Your task to perform on an android device: turn on the 24-hour format for clock Image 0: 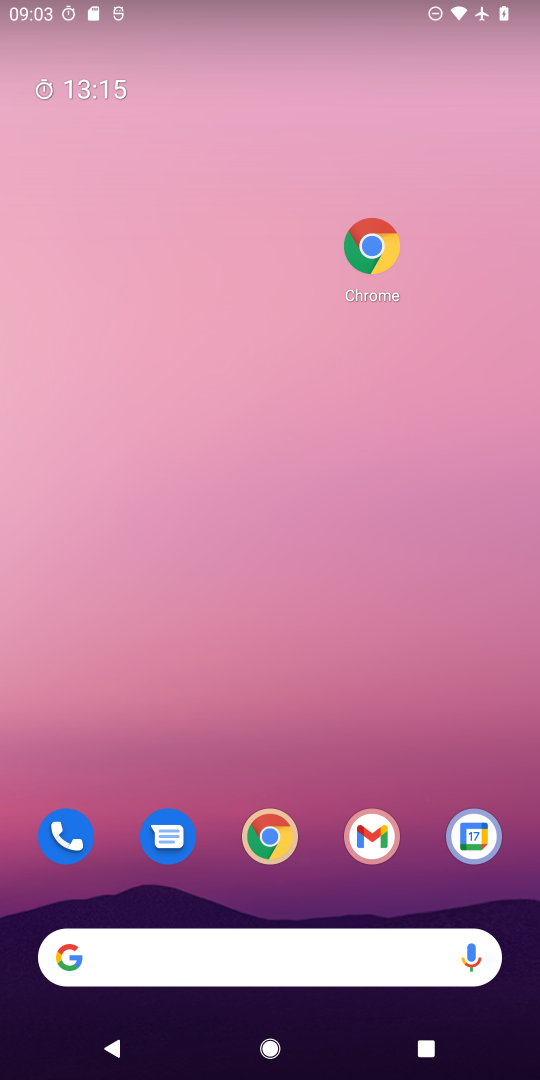
Step 0: drag from (283, 926) to (243, 43)
Your task to perform on an android device: turn on the 24-hour format for clock Image 1: 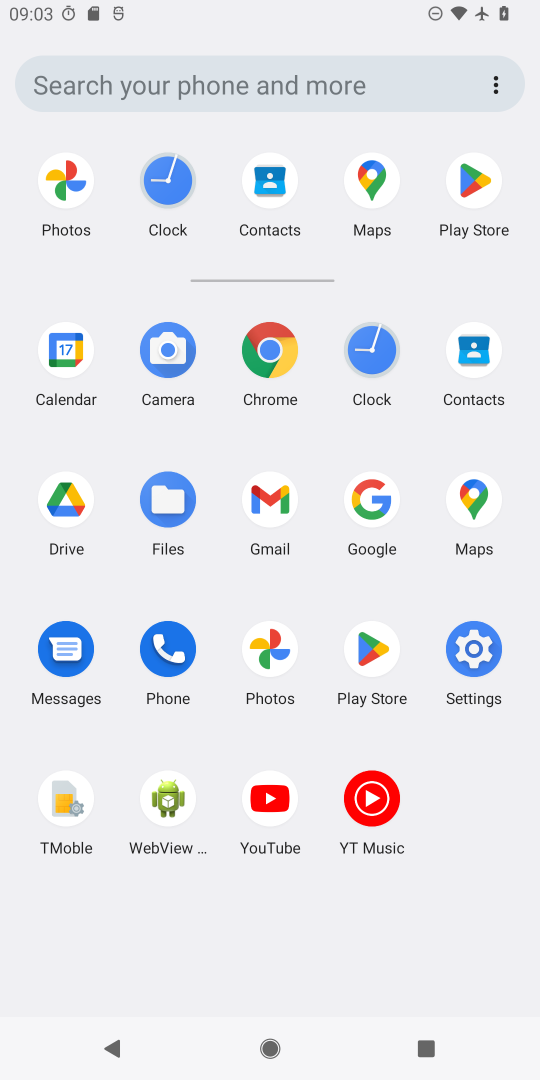
Step 1: click (364, 344)
Your task to perform on an android device: turn on the 24-hour format for clock Image 2: 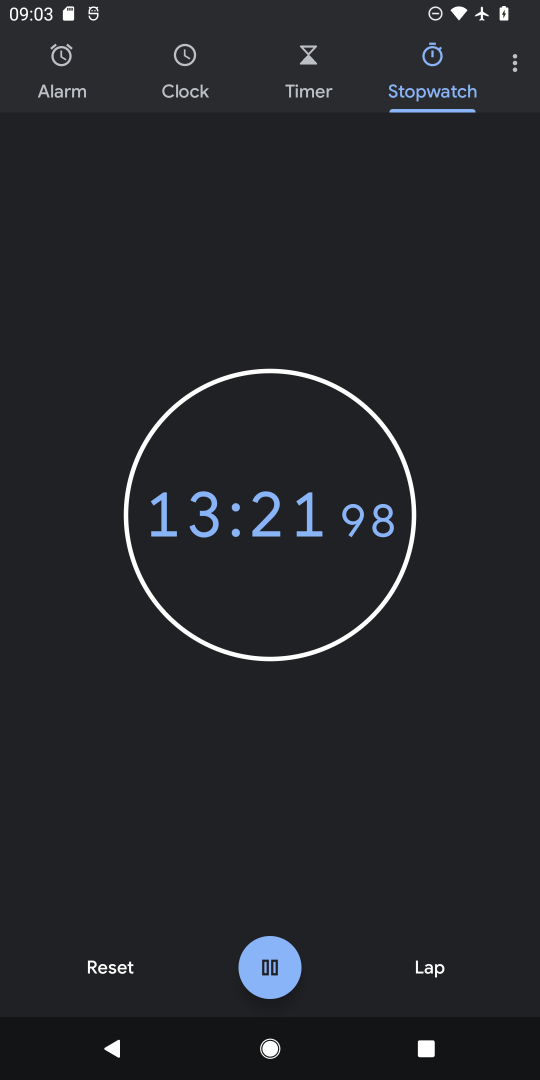
Step 2: click (516, 59)
Your task to perform on an android device: turn on the 24-hour format for clock Image 3: 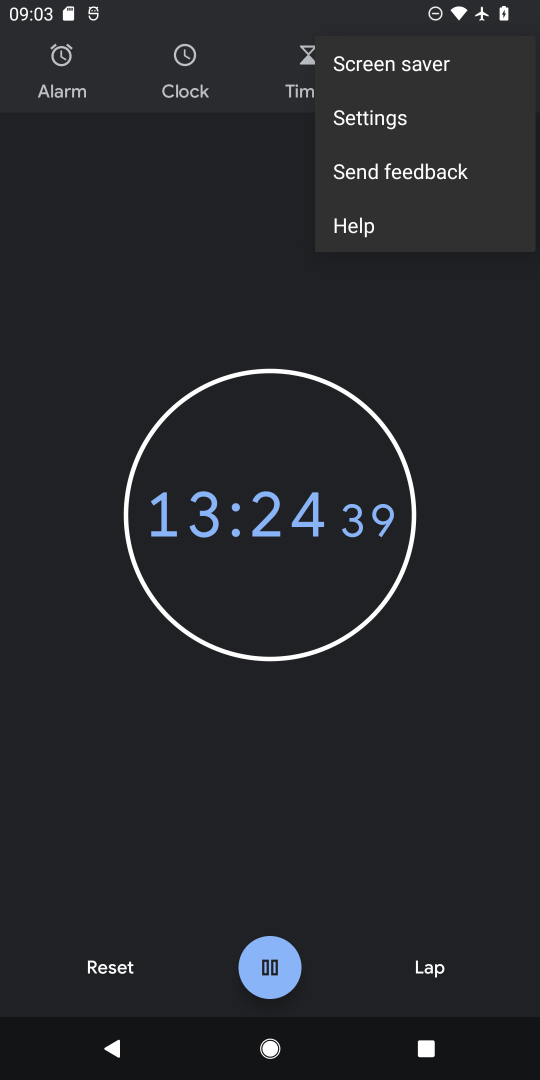
Step 3: click (386, 132)
Your task to perform on an android device: turn on the 24-hour format for clock Image 4: 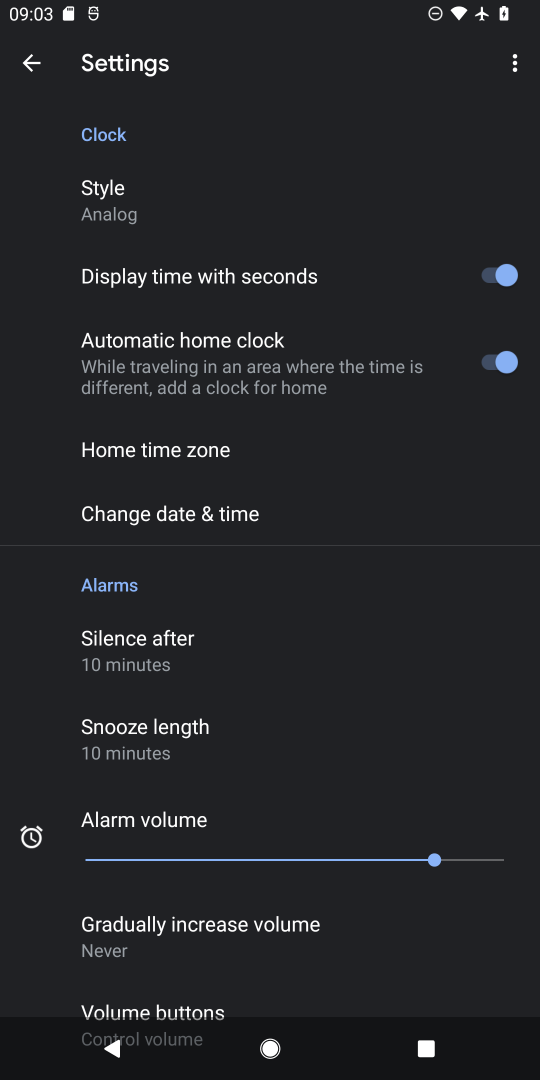
Step 4: click (229, 518)
Your task to perform on an android device: turn on the 24-hour format for clock Image 5: 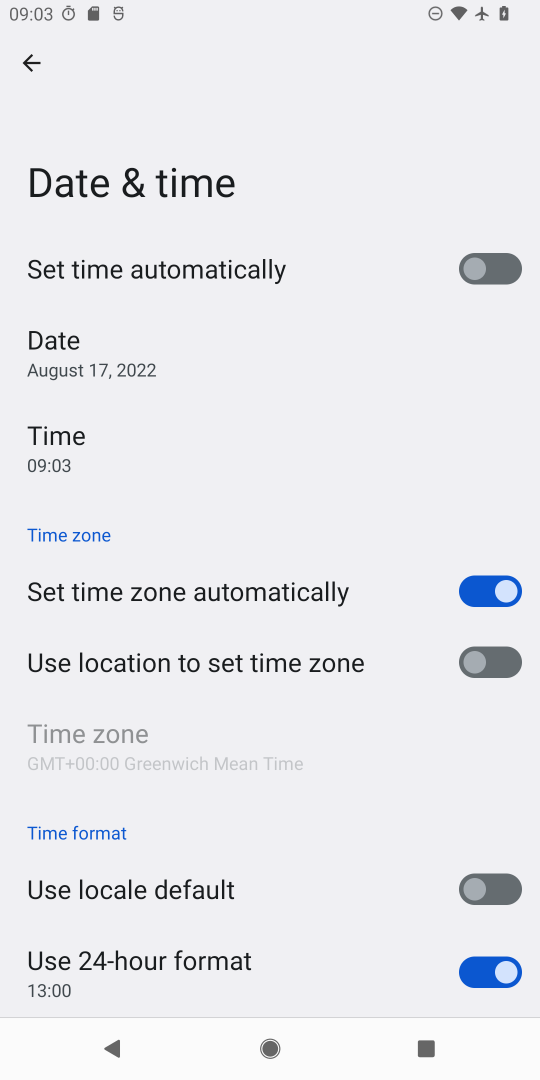
Step 5: task complete